Your task to perform on an android device: visit the assistant section in the google photos Image 0: 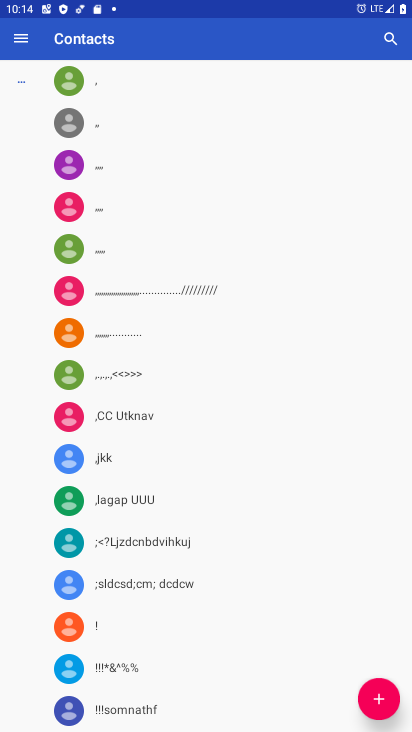
Step 0: press home button
Your task to perform on an android device: visit the assistant section in the google photos Image 1: 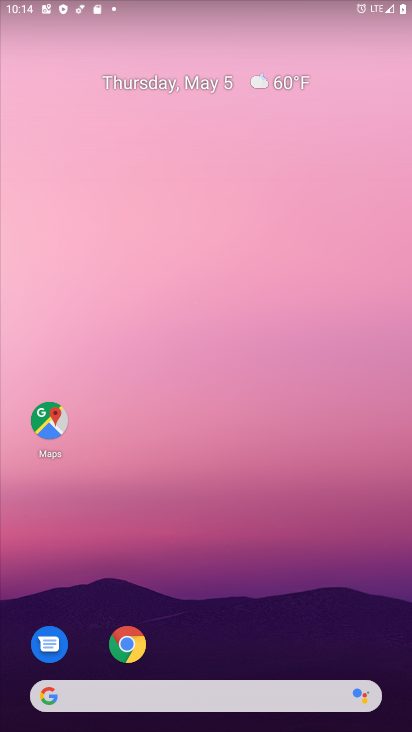
Step 1: drag from (251, 561) to (212, 149)
Your task to perform on an android device: visit the assistant section in the google photos Image 2: 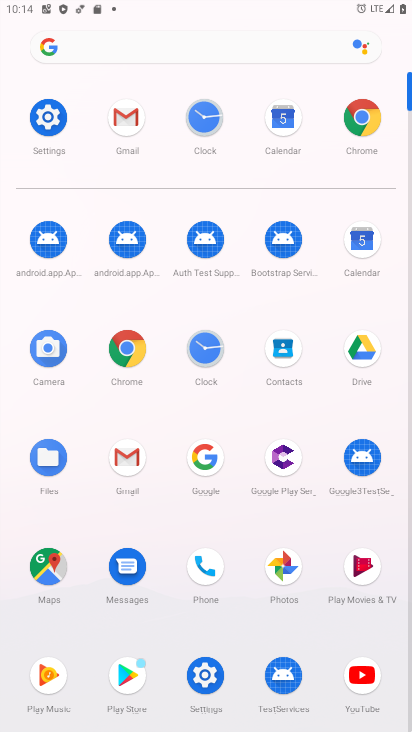
Step 2: click (286, 572)
Your task to perform on an android device: visit the assistant section in the google photos Image 3: 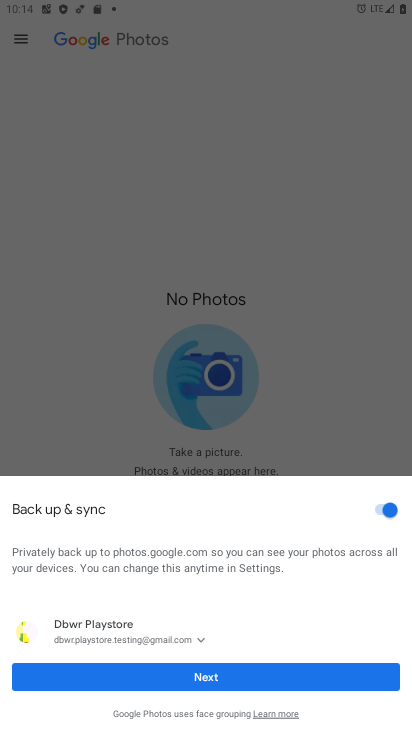
Step 3: click (254, 673)
Your task to perform on an android device: visit the assistant section in the google photos Image 4: 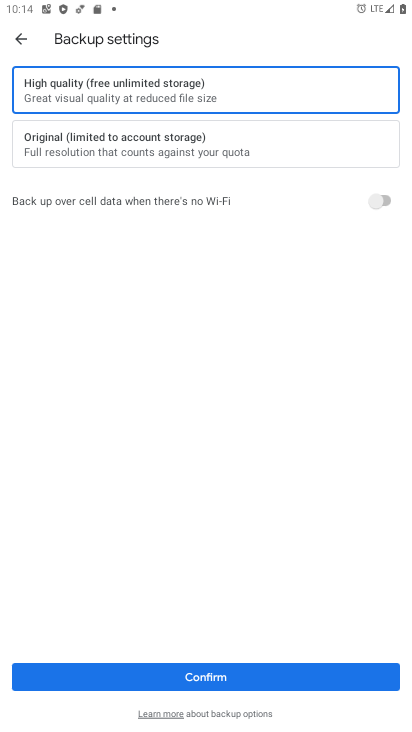
Step 4: click (281, 673)
Your task to perform on an android device: visit the assistant section in the google photos Image 5: 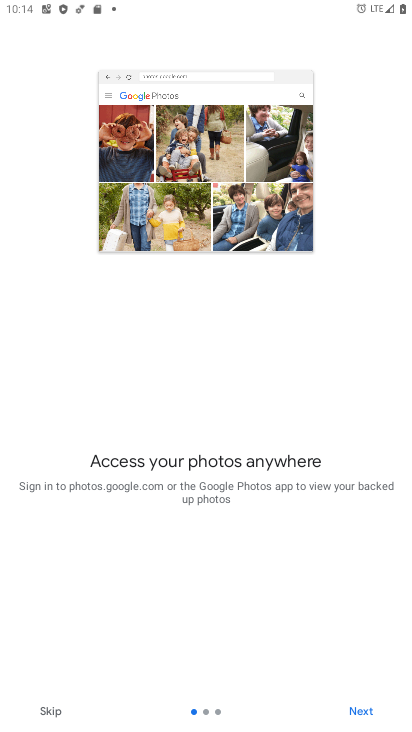
Step 5: click (355, 711)
Your task to perform on an android device: visit the assistant section in the google photos Image 6: 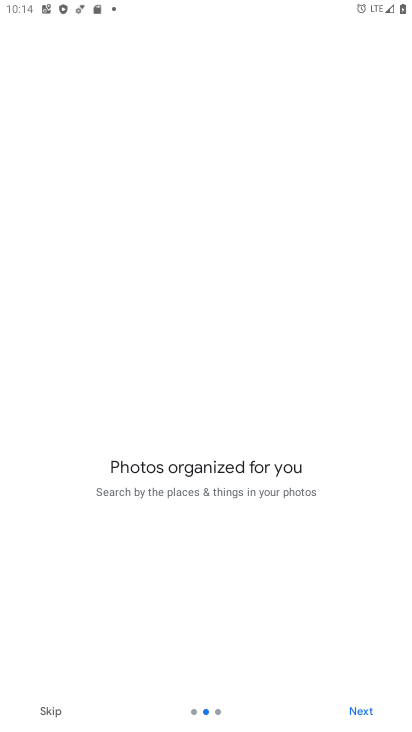
Step 6: click (355, 711)
Your task to perform on an android device: visit the assistant section in the google photos Image 7: 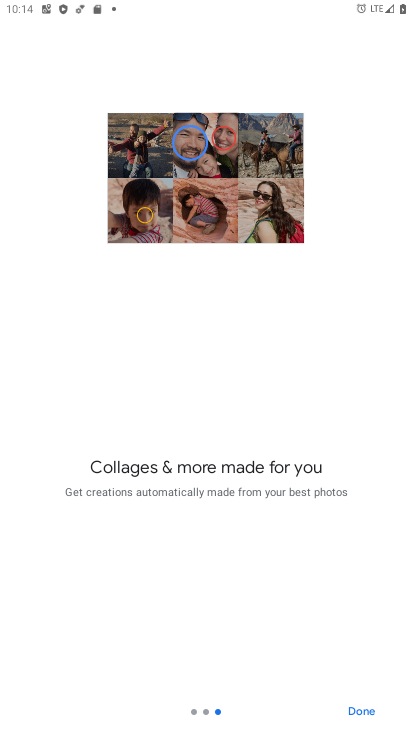
Step 7: click (356, 710)
Your task to perform on an android device: visit the assistant section in the google photos Image 8: 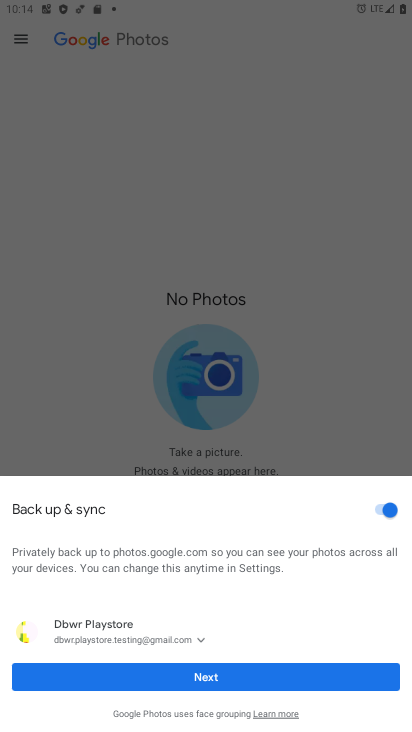
Step 8: click (275, 671)
Your task to perform on an android device: visit the assistant section in the google photos Image 9: 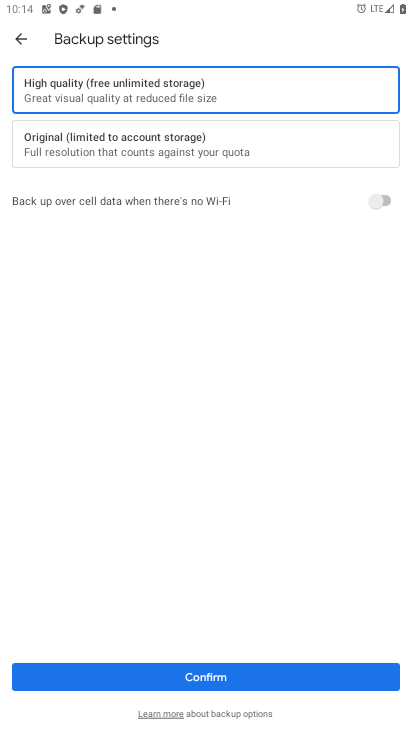
Step 9: click (275, 671)
Your task to perform on an android device: visit the assistant section in the google photos Image 10: 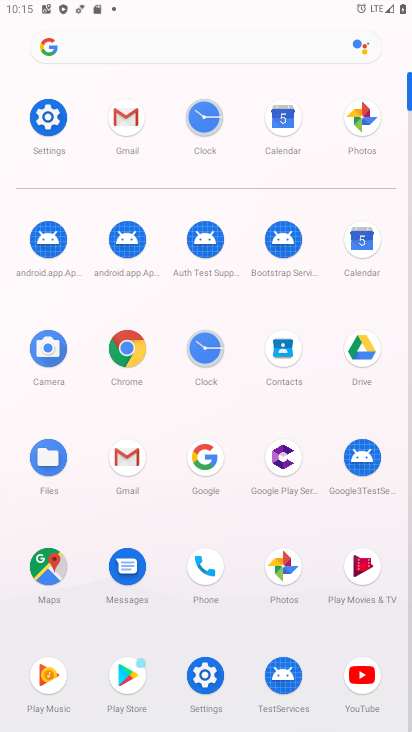
Step 10: click (279, 585)
Your task to perform on an android device: visit the assistant section in the google photos Image 11: 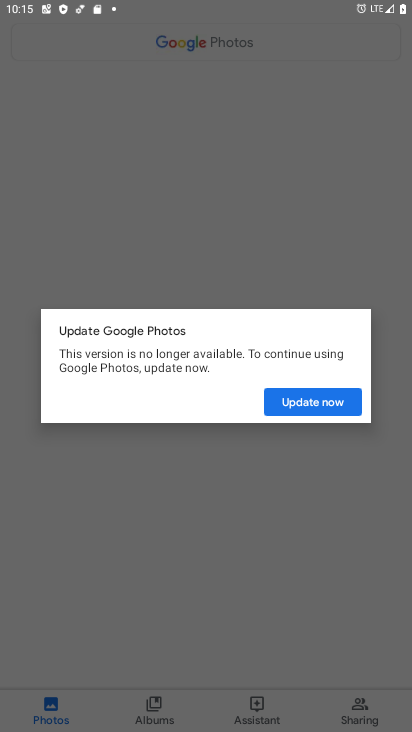
Step 11: click (259, 703)
Your task to perform on an android device: visit the assistant section in the google photos Image 12: 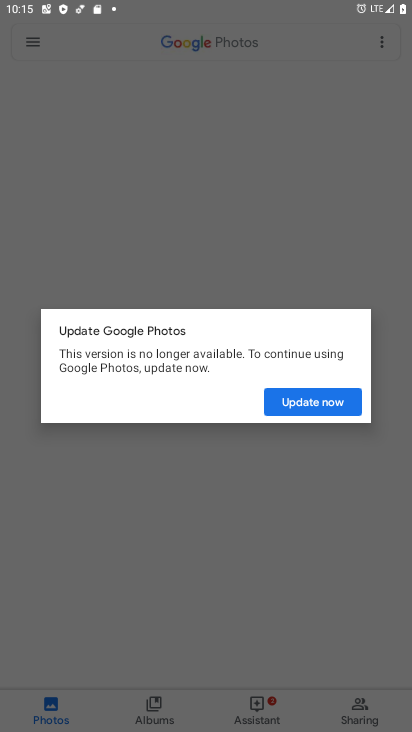
Step 12: click (325, 408)
Your task to perform on an android device: visit the assistant section in the google photos Image 13: 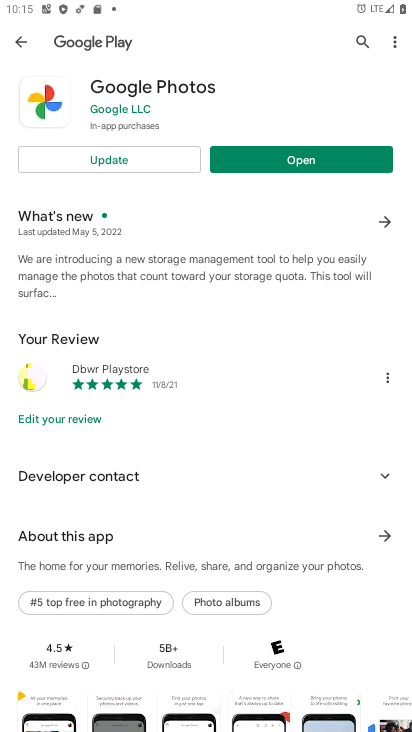
Step 13: click (188, 165)
Your task to perform on an android device: visit the assistant section in the google photos Image 14: 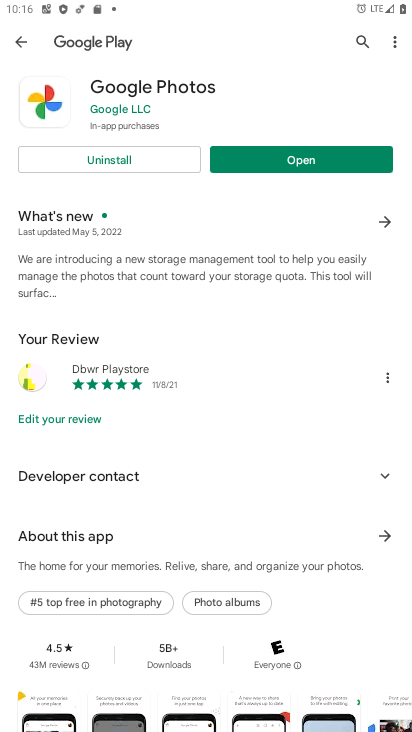
Step 14: click (388, 176)
Your task to perform on an android device: visit the assistant section in the google photos Image 15: 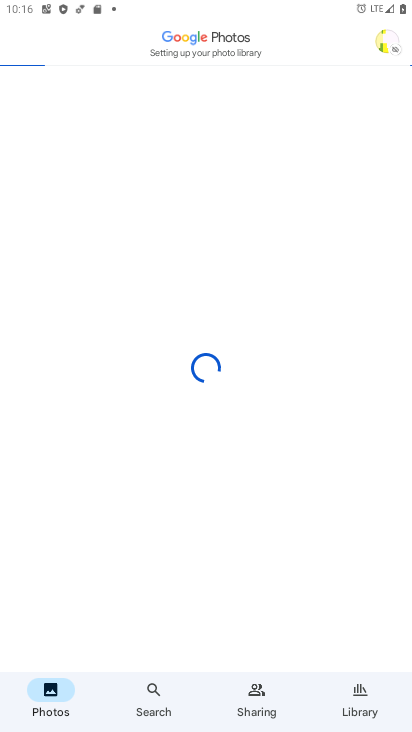
Step 15: click (156, 701)
Your task to perform on an android device: visit the assistant section in the google photos Image 16: 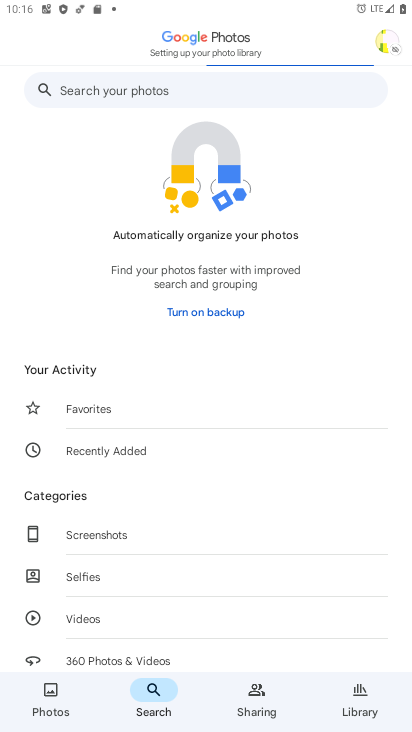
Step 16: click (233, 94)
Your task to perform on an android device: visit the assistant section in the google photos Image 17: 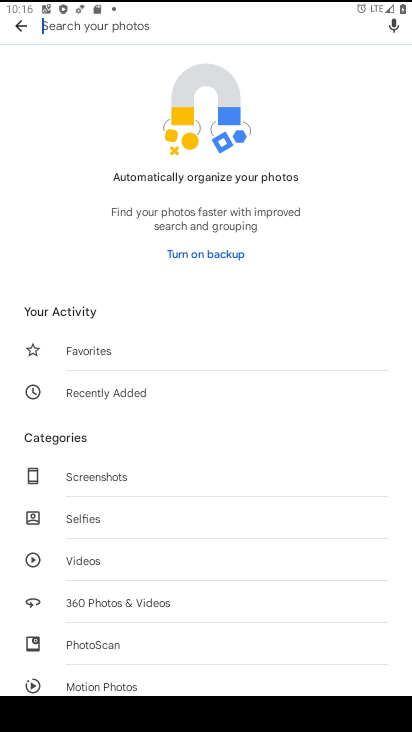
Step 17: type "assistant"
Your task to perform on an android device: visit the assistant section in the google photos Image 18: 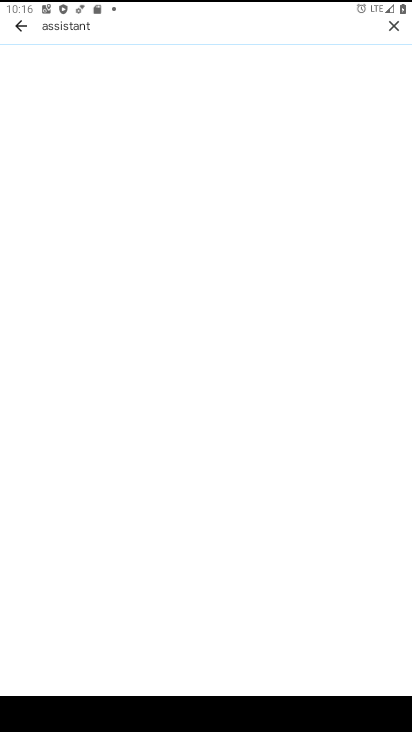
Step 18: type "section"
Your task to perform on an android device: visit the assistant section in the google photos Image 19: 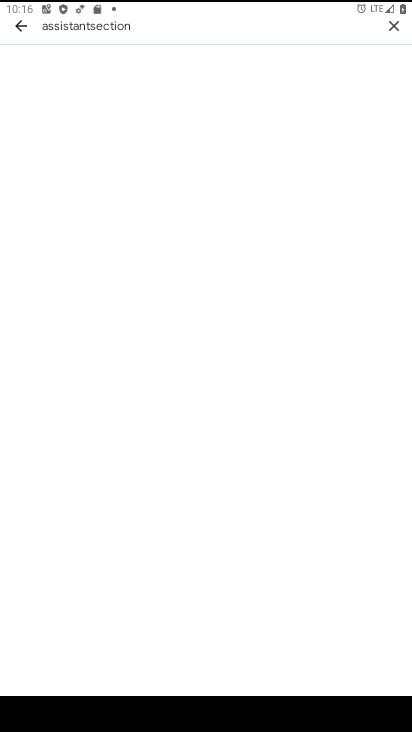
Step 19: click (256, 29)
Your task to perform on an android device: visit the assistant section in the google photos Image 20: 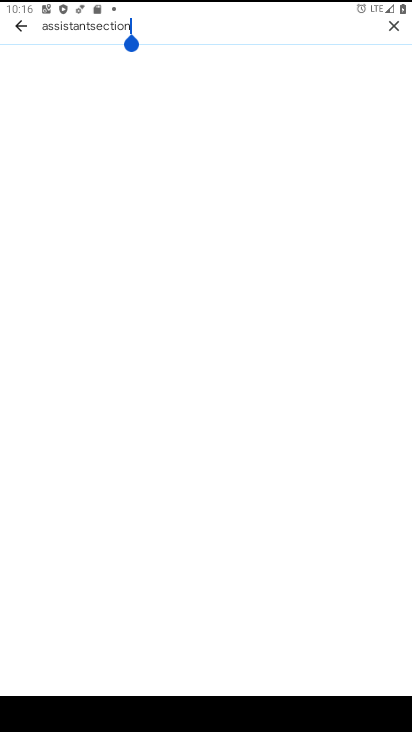
Step 20: click (408, 19)
Your task to perform on an android device: visit the assistant section in the google photos Image 21: 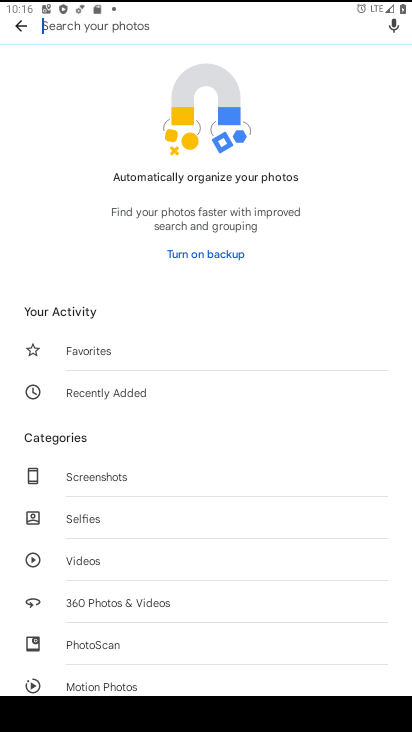
Step 21: click (408, 21)
Your task to perform on an android device: visit the assistant section in the google photos Image 22: 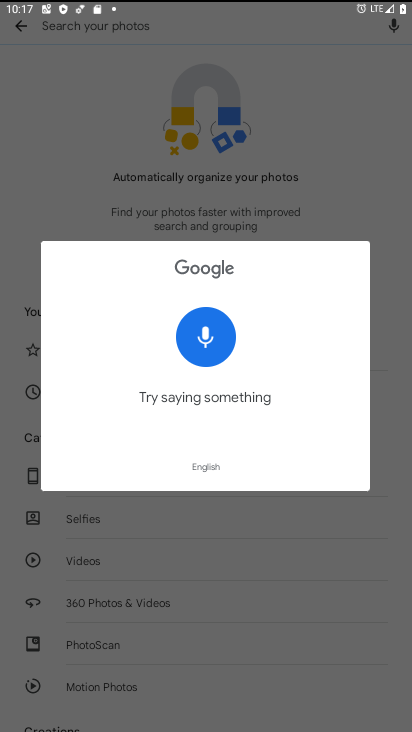
Step 22: click (236, 577)
Your task to perform on an android device: visit the assistant section in the google photos Image 23: 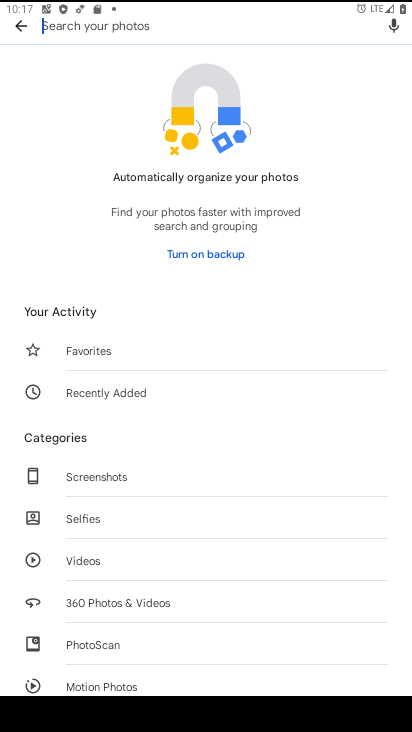
Step 23: task complete